Your task to perform on an android device: open app "Microsoft Authenticator" (install if not already installed) Image 0: 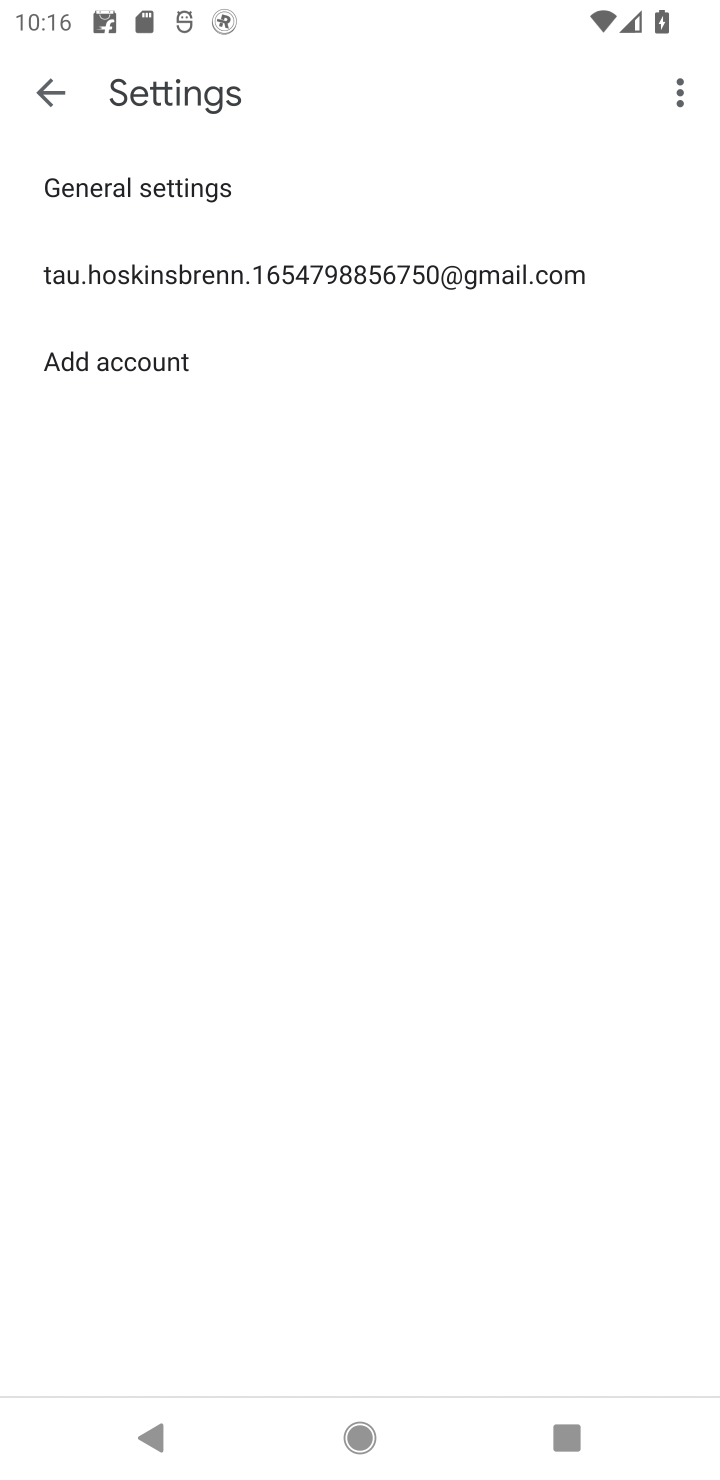
Step 0: press home button
Your task to perform on an android device: open app "Microsoft Authenticator" (install if not already installed) Image 1: 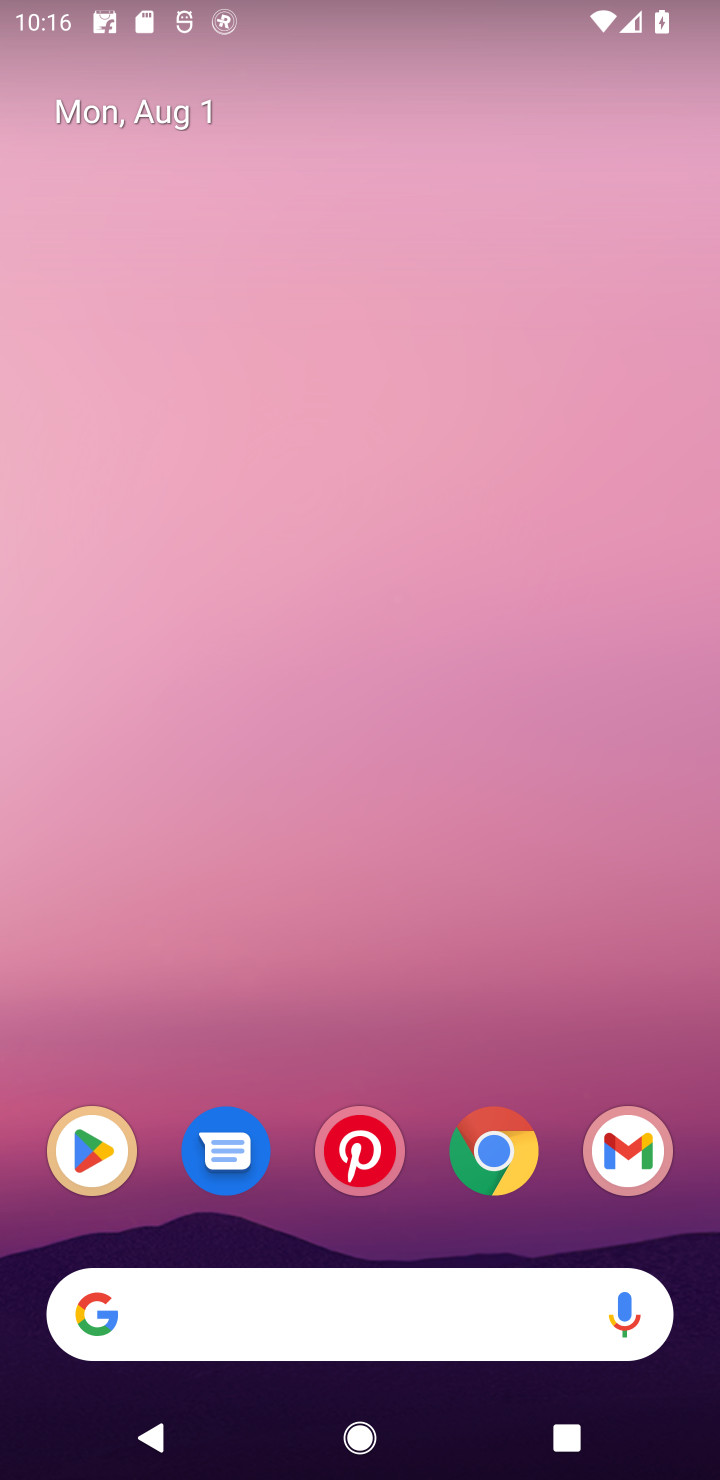
Step 1: click (101, 1173)
Your task to perform on an android device: open app "Microsoft Authenticator" (install if not already installed) Image 2: 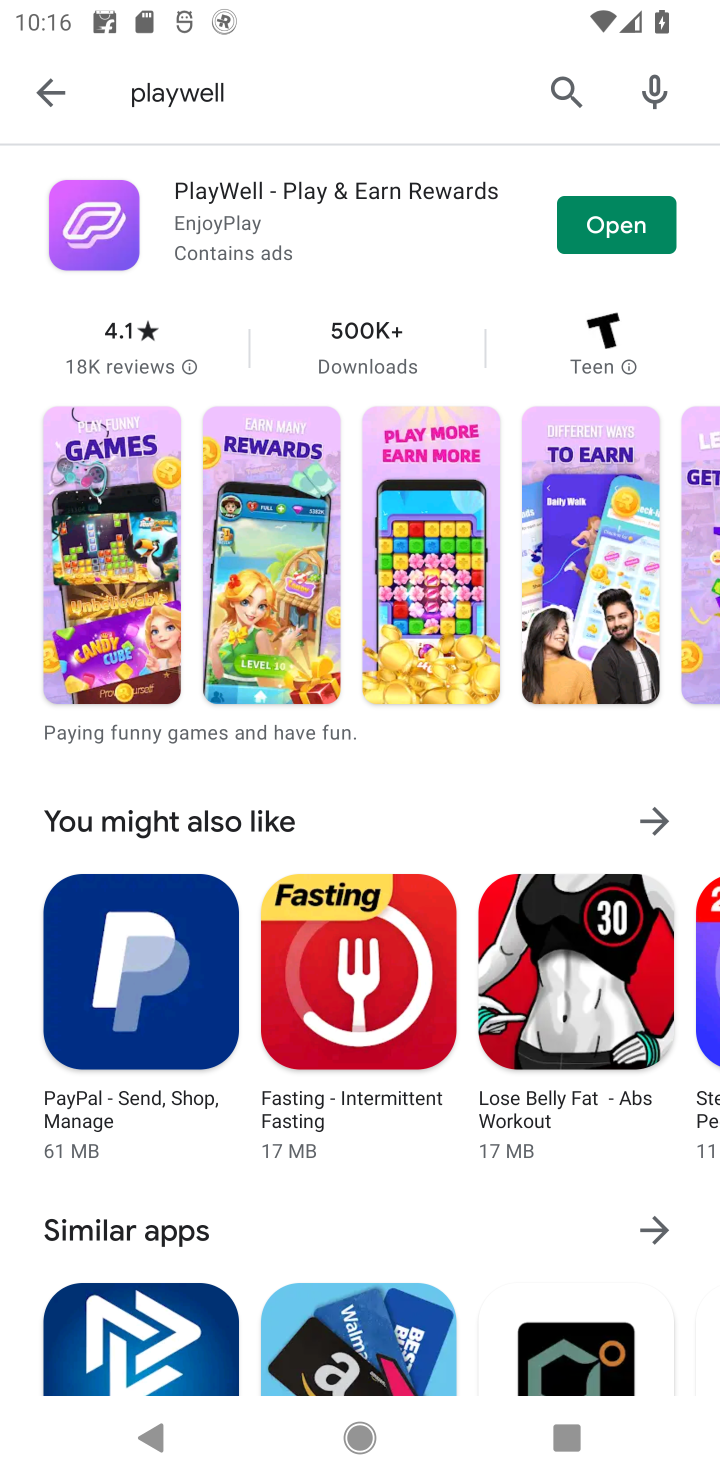
Step 2: click (557, 101)
Your task to perform on an android device: open app "Microsoft Authenticator" (install if not already installed) Image 3: 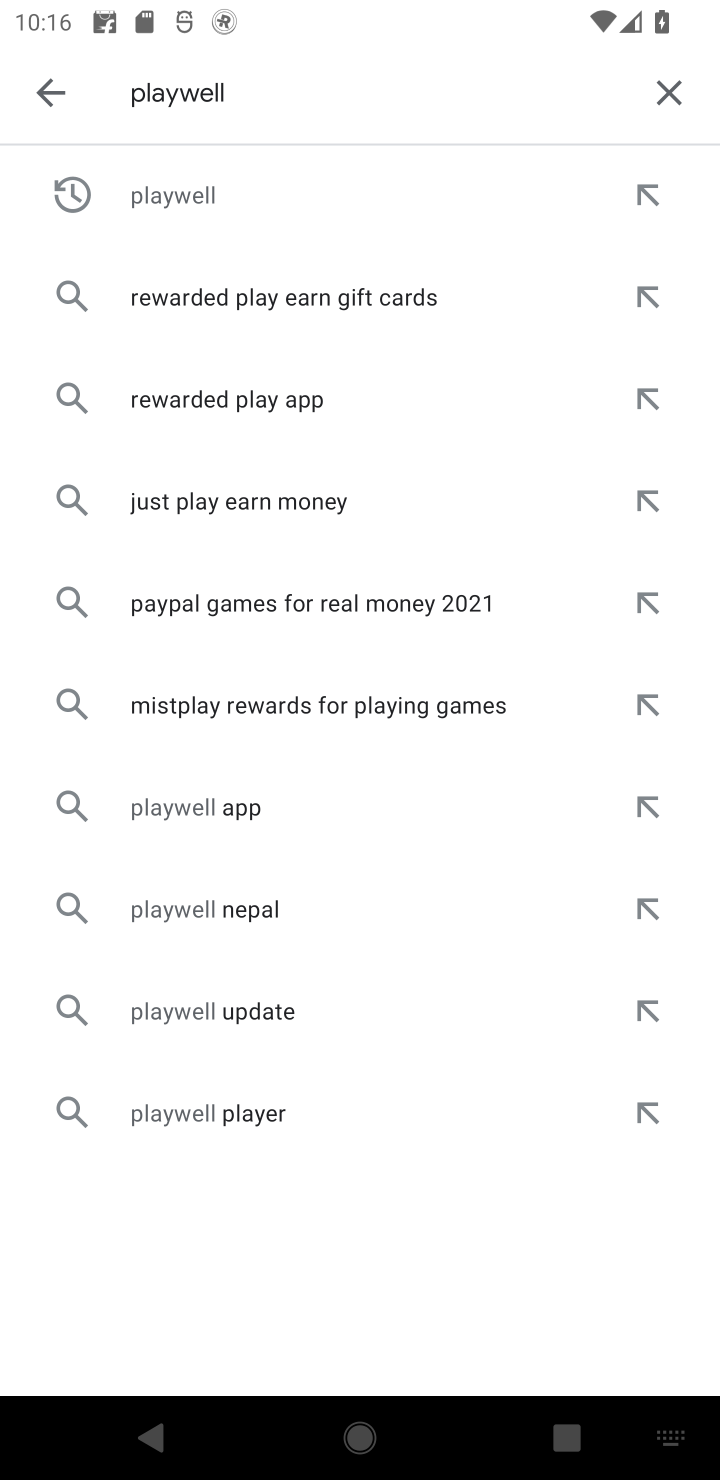
Step 3: click (681, 104)
Your task to perform on an android device: open app "Microsoft Authenticator" (install if not already installed) Image 4: 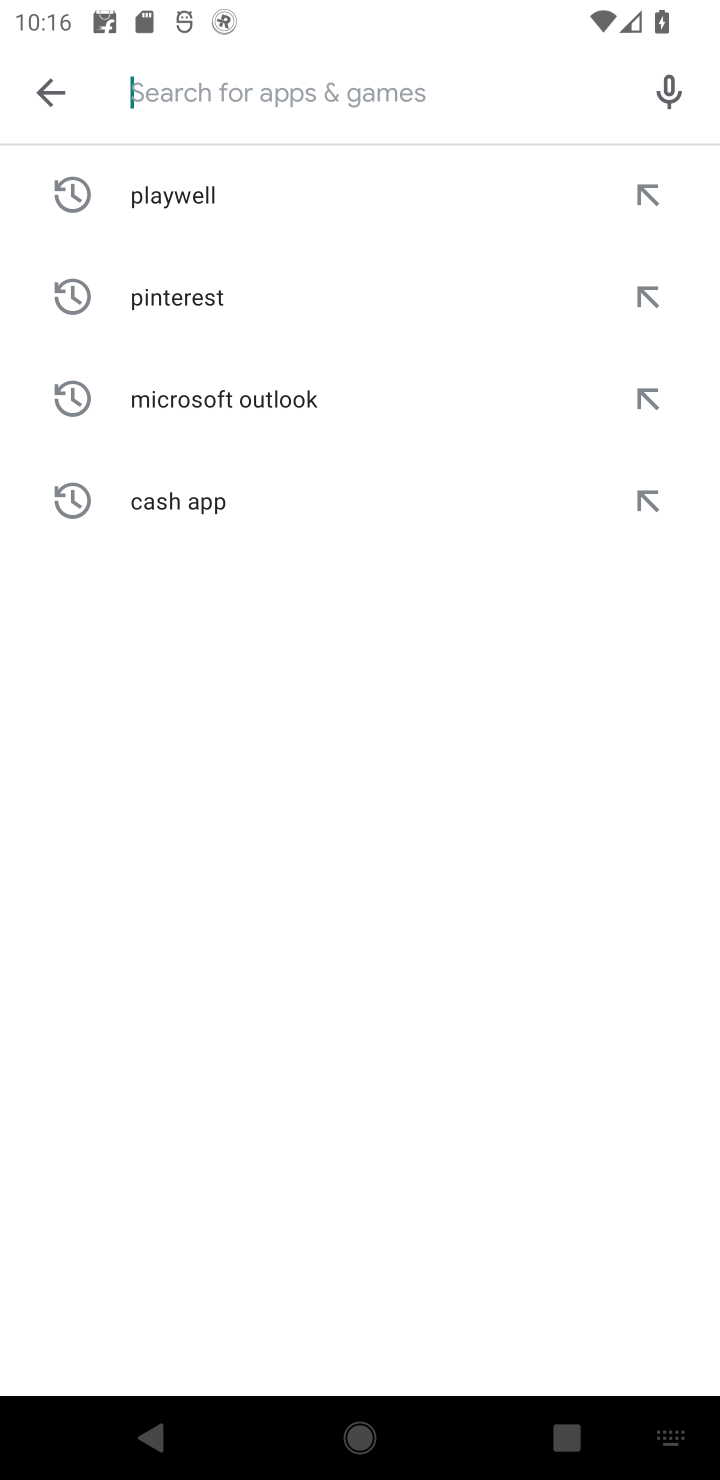
Step 4: type "Microsoft Authenticator"
Your task to perform on an android device: open app "Microsoft Authenticator" (install if not already installed) Image 5: 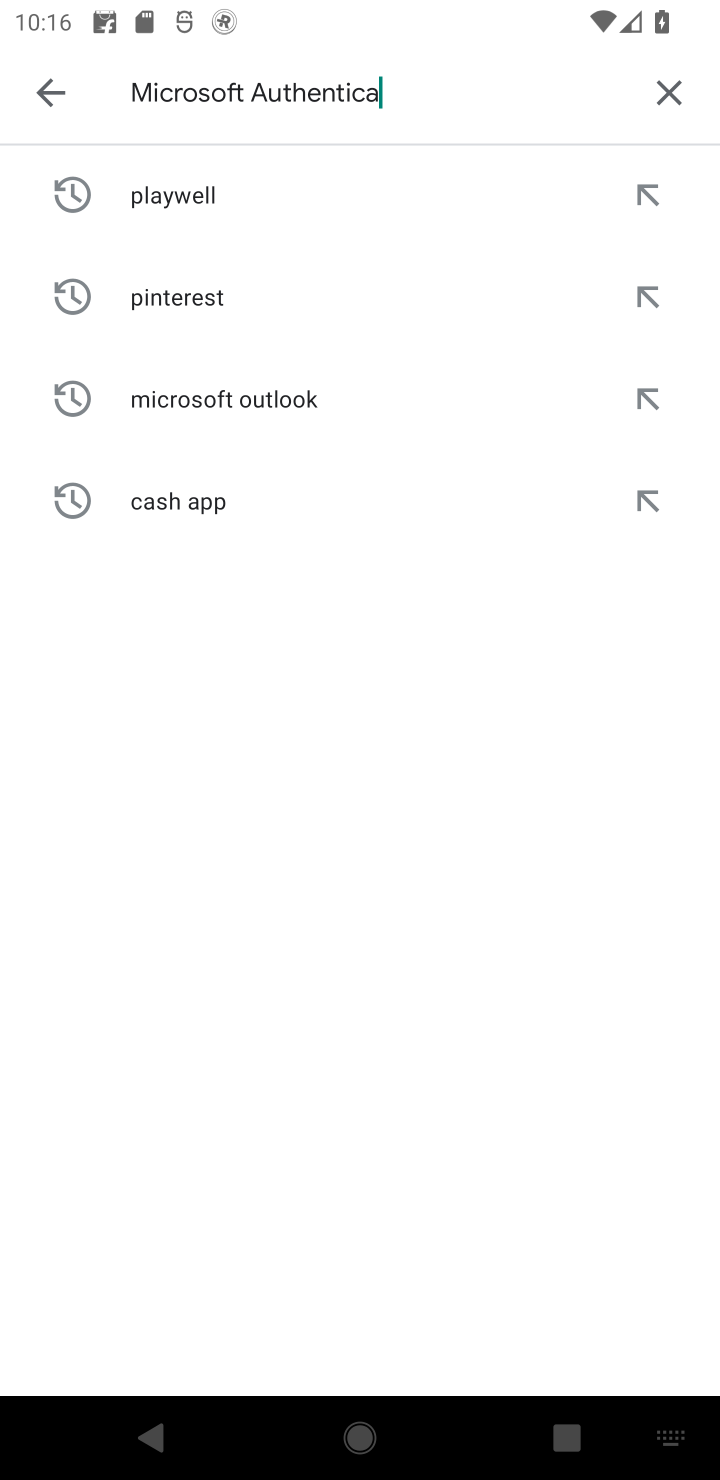
Step 5: type ""
Your task to perform on an android device: open app "Microsoft Authenticator" (install if not already installed) Image 6: 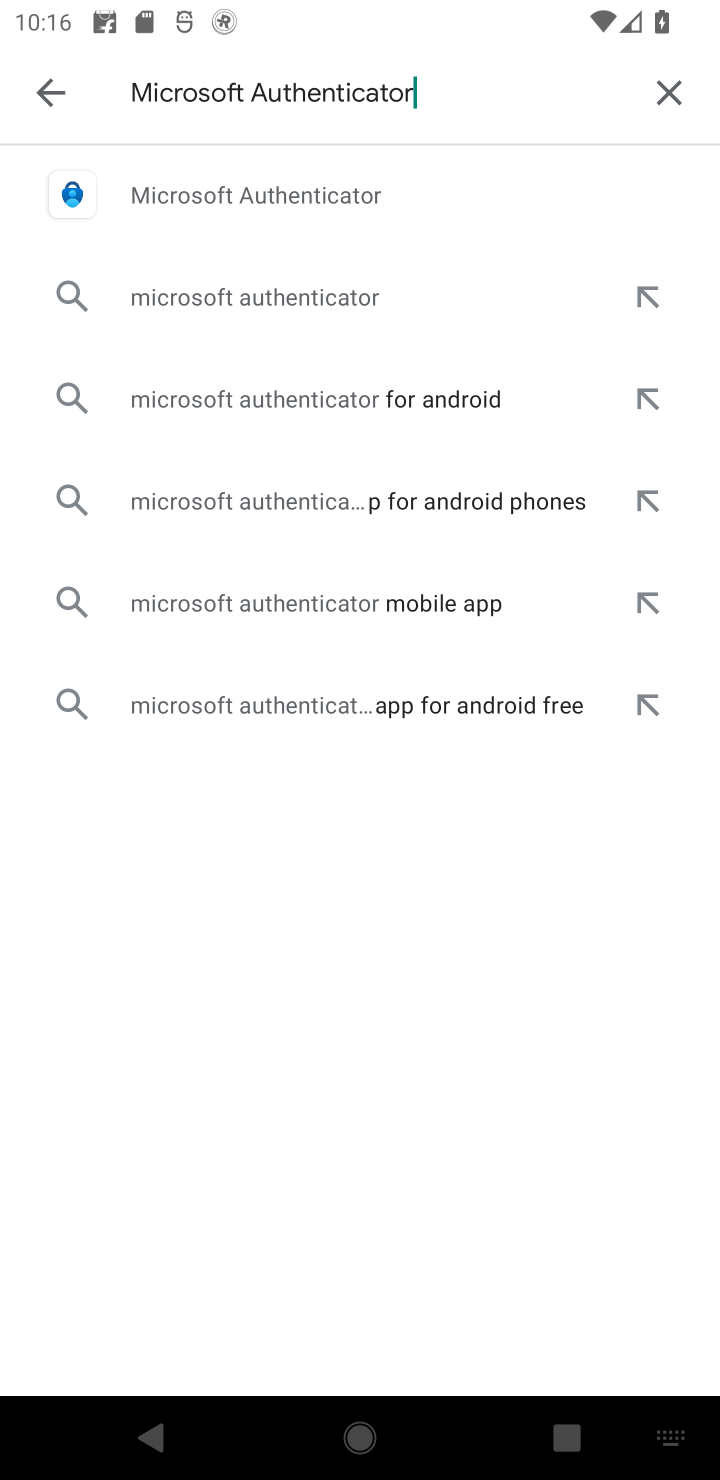
Step 6: click (224, 209)
Your task to perform on an android device: open app "Microsoft Authenticator" (install if not already installed) Image 7: 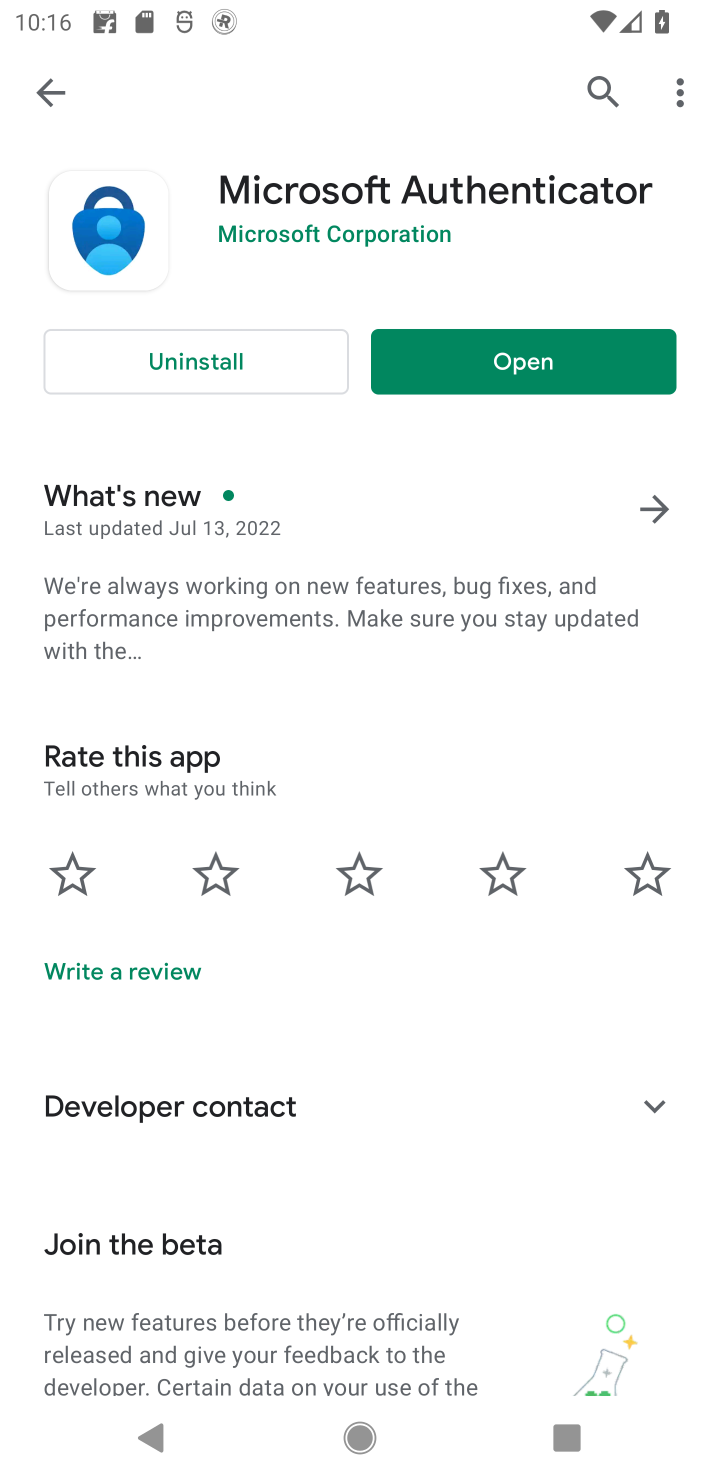
Step 7: click (473, 371)
Your task to perform on an android device: open app "Microsoft Authenticator" (install if not already installed) Image 8: 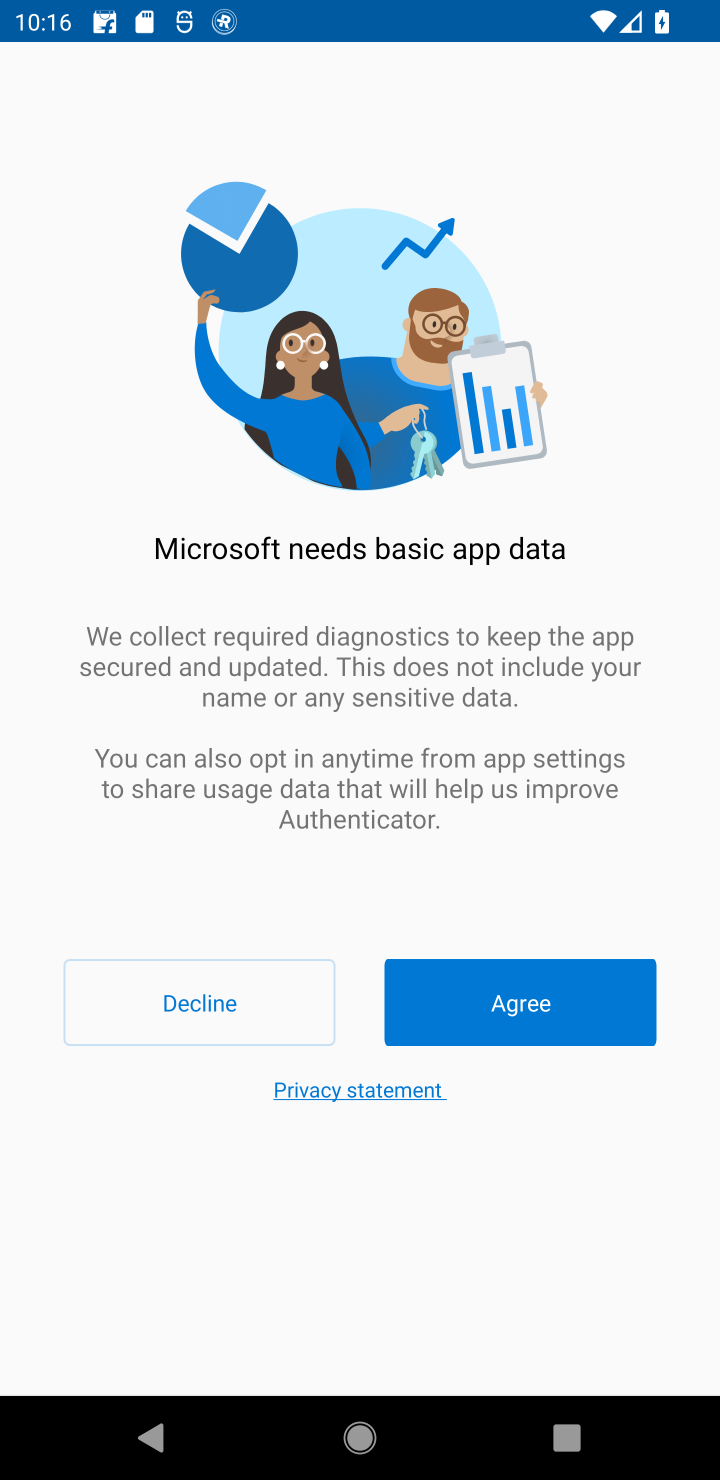
Step 8: task complete